Your task to perform on an android device: find snoozed emails in the gmail app Image 0: 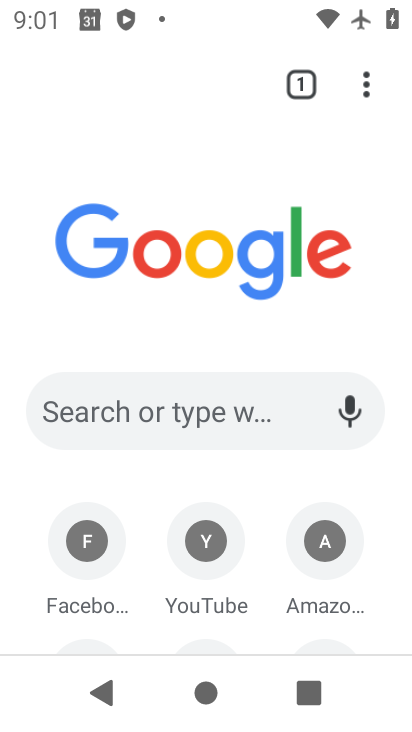
Step 0: press home button
Your task to perform on an android device: find snoozed emails in the gmail app Image 1: 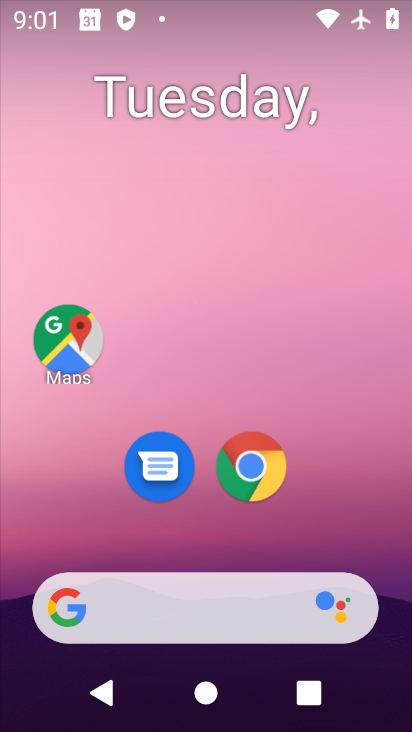
Step 1: drag from (323, 472) to (303, 32)
Your task to perform on an android device: find snoozed emails in the gmail app Image 2: 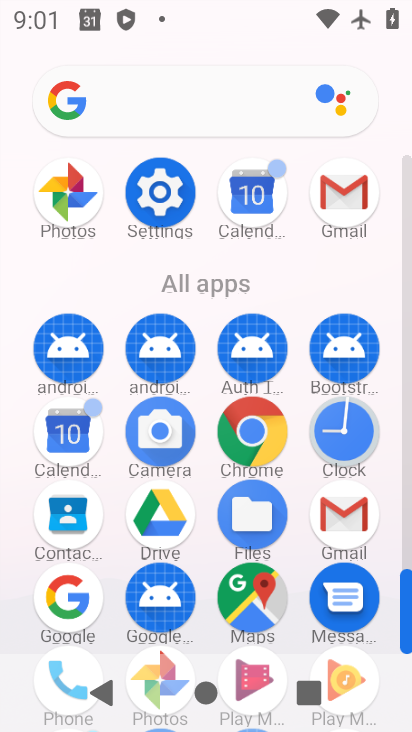
Step 2: click (340, 192)
Your task to perform on an android device: find snoozed emails in the gmail app Image 3: 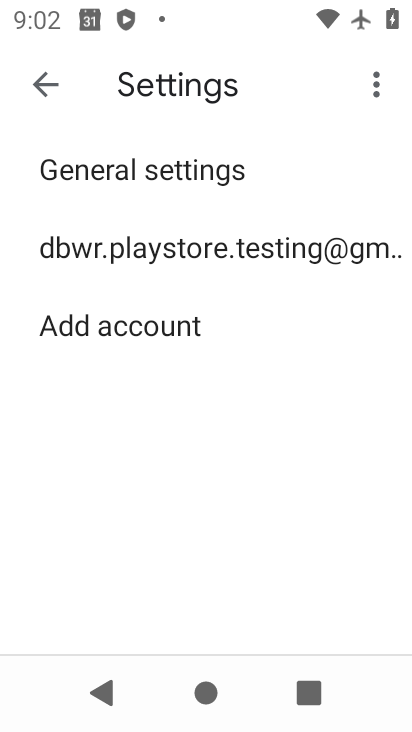
Step 3: click (38, 80)
Your task to perform on an android device: find snoozed emails in the gmail app Image 4: 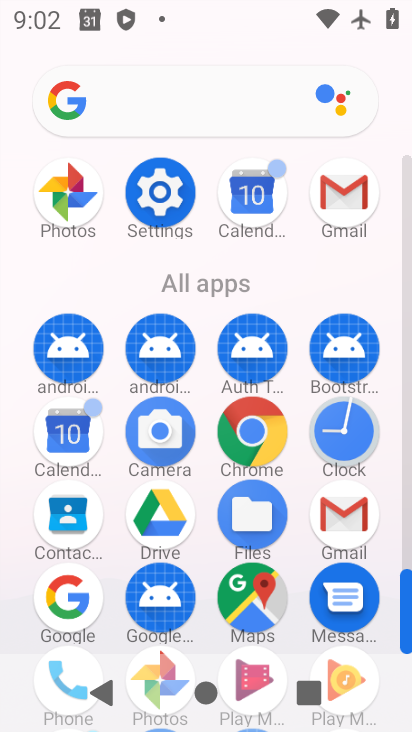
Step 4: click (340, 201)
Your task to perform on an android device: find snoozed emails in the gmail app Image 5: 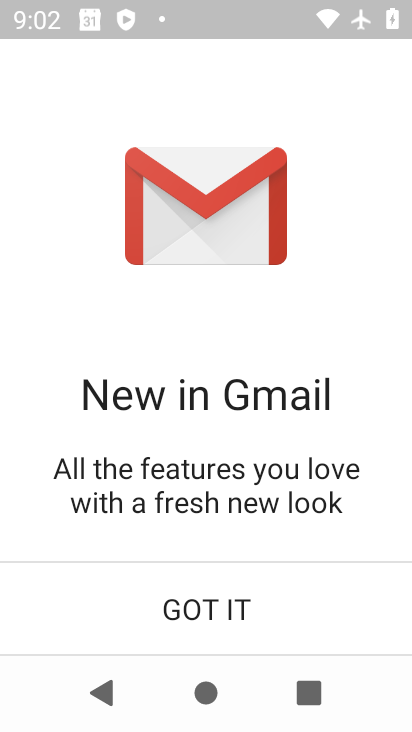
Step 5: click (217, 603)
Your task to perform on an android device: find snoozed emails in the gmail app Image 6: 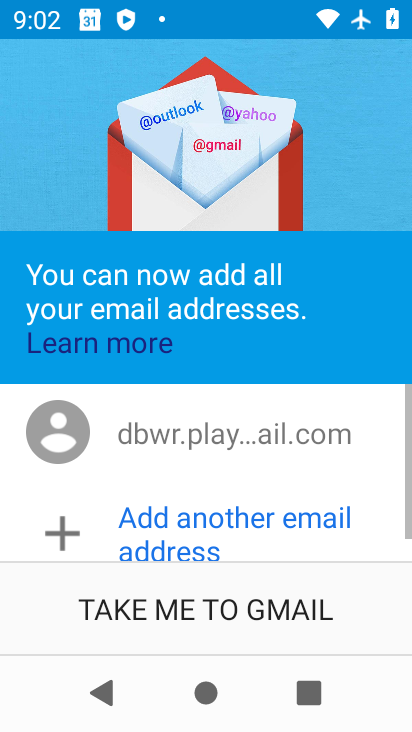
Step 6: click (215, 601)
Your task to perform on an android device: find snoozed emails in the gmail app Image 7: 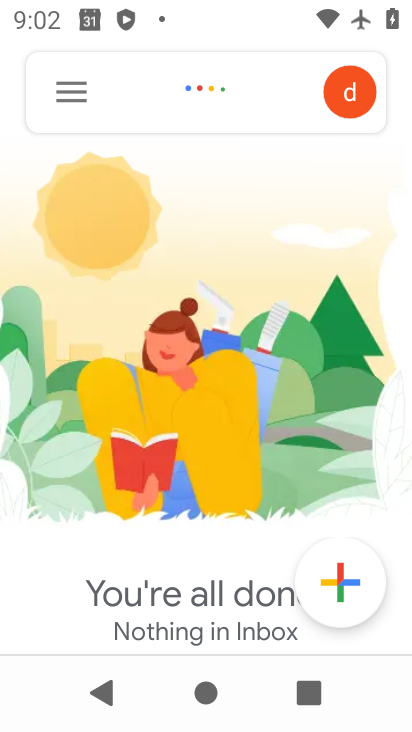
Step 7: click (76, 99)
Your task to perform on an android device: find snoozed emails in the gmail app Image 8: 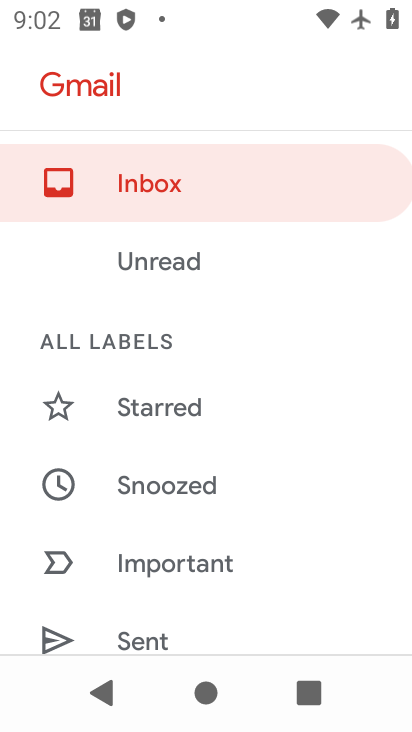
Step 8: drag from (212, 549) to (250, 272)
Your task to perform on an android device: find snoozed emails in the gmail app Image 9: 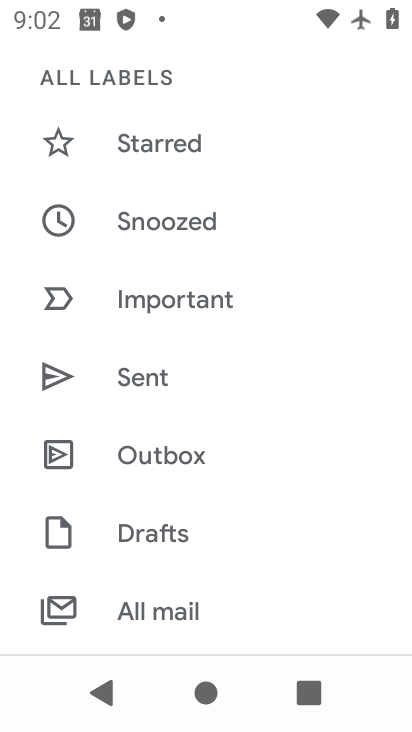
Step 9: click (178, 219)
Your task to perform on an android device: find snoozed emails in the gmail app Image 10: 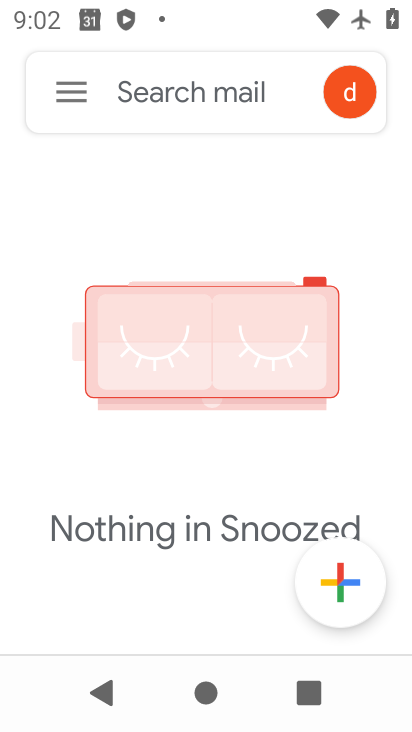
Step 10: task complete